Your task to perform on an android device: Open display settings Image 0: 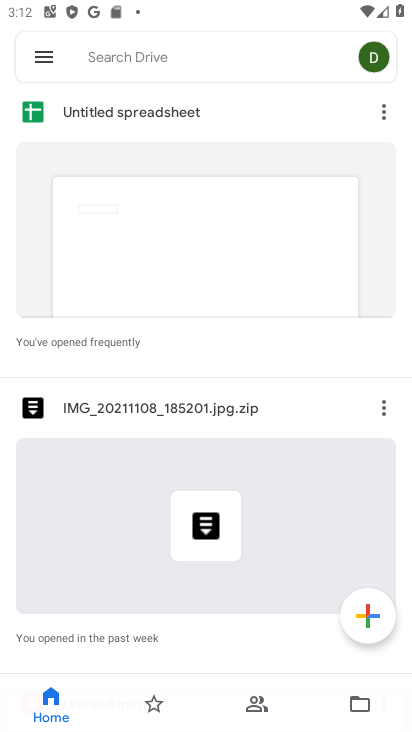
Step 0: press home button
Your task to perform on an android device: Open display settings Image 1: 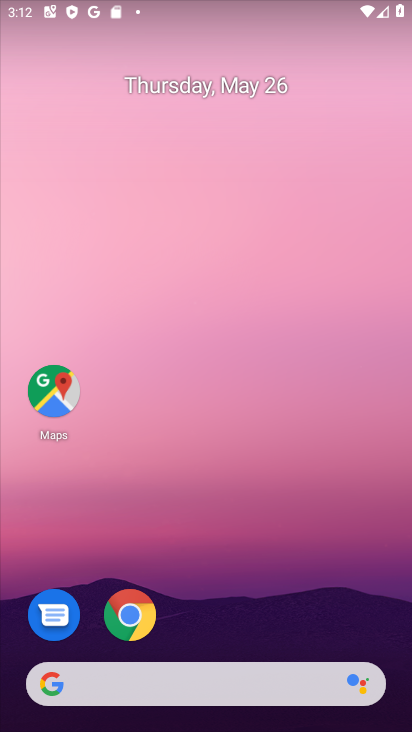
Step 1: drag from (223, 644) to (222, 159)
Your task to perform on an android device: Open display settings Image 2: 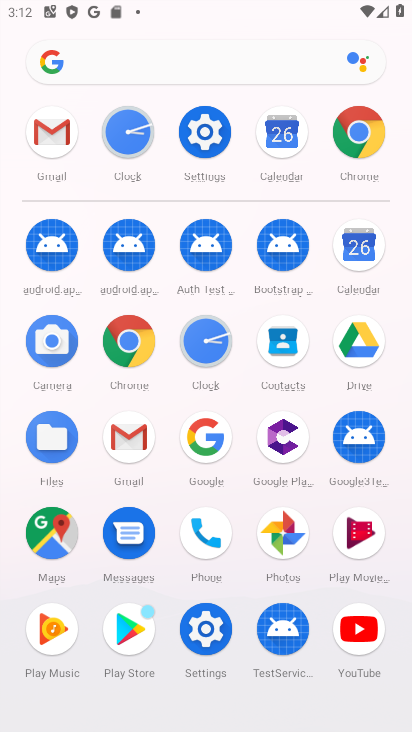
Step 2: click (213, 136)
Your task to perform on an android device: Open display settings Image 3: 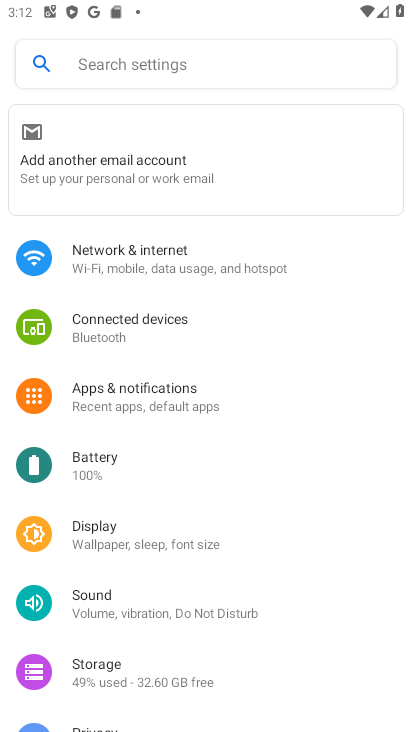
Step 3: click (100, 545)
Your task to perform on an android device: Open display settings Image 4: 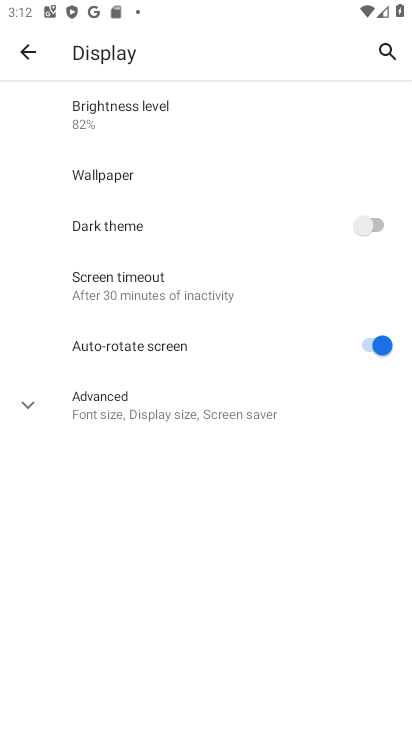
Step 4: task complete